Your task to perform on an android device: Open Google Chrome and click the shortcut for Amazon.com Image 0: 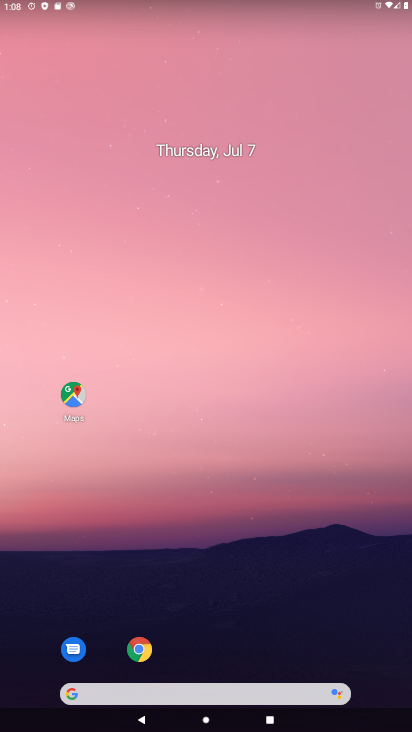
Step 0: click (139, 657)
Your task to perform on an android device: Open Google Chrome and click the shortcut for Amazon.com Image 1: 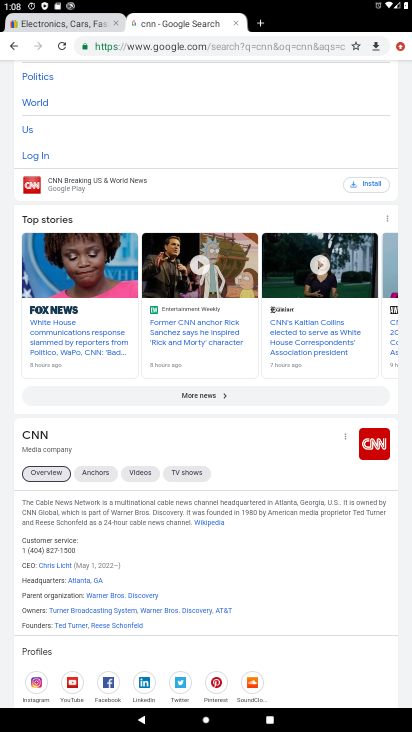
Step 1: click (254, 25)
Your task to perform on an android device: Open Google Chrome and click the shortcut for Amazon.com Image 2: 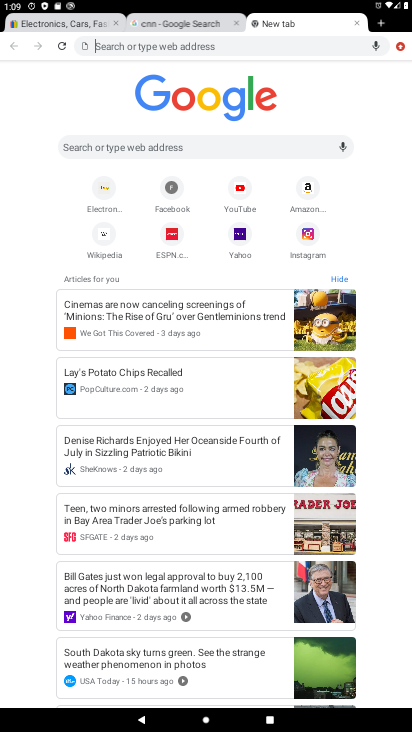
Step 2: click (305, 184)
Your task to perform on an android device: Open Google Chrome and click the shortcut for Amazon.com Image 3: 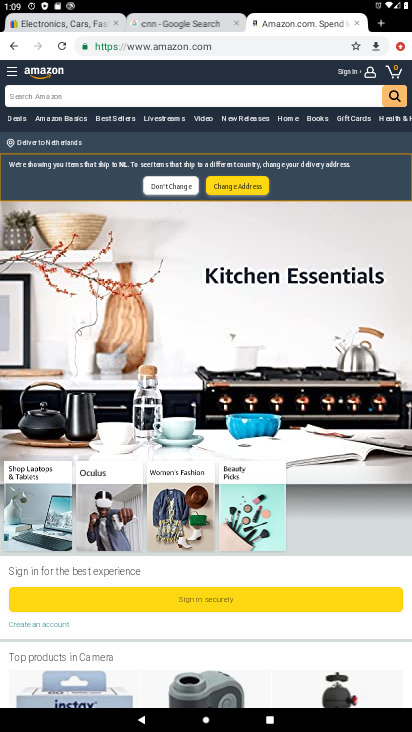
Step 3: task complete